Your task to perform on an android device: set the stopwatch Image 0: 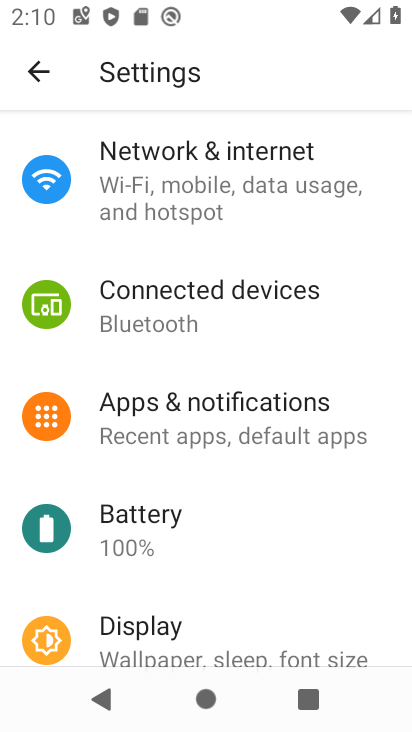
Step 0: press home button
Your task to perform on an android device: set the stopwatch Image 1: 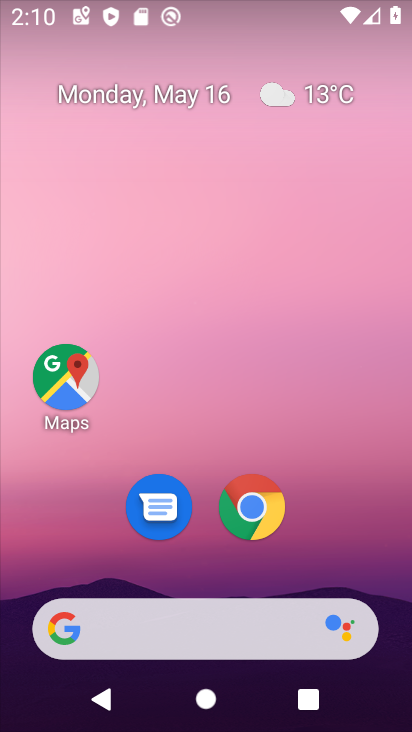
Step 1: drag from (292, 3) to (297, 61)
Your task to perform on an android device: set the stopwatch Image 2: 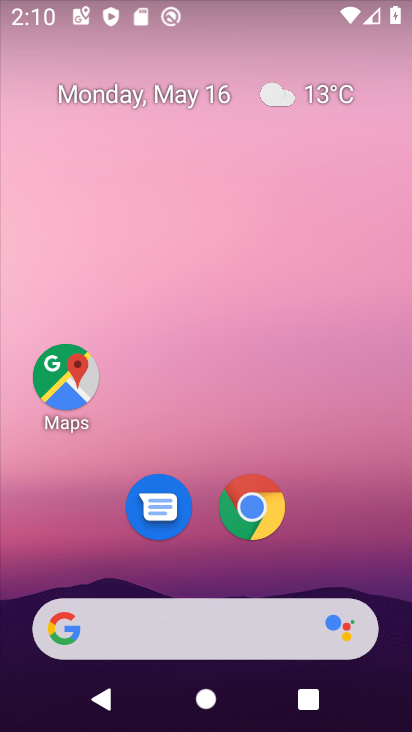
Step 2: drag from (363, 544) to (369, 108)
Your task to perform on an android device: set the stopwatch Image 3: 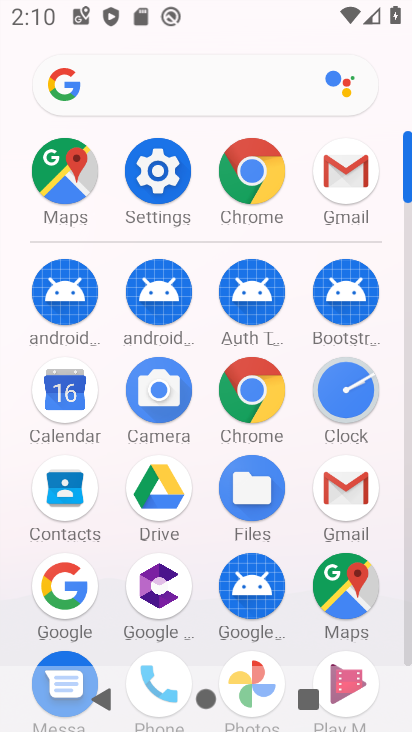
Step 3: click (345, 385)
Your task to perform on an android device: set the stopwatch Image 4: 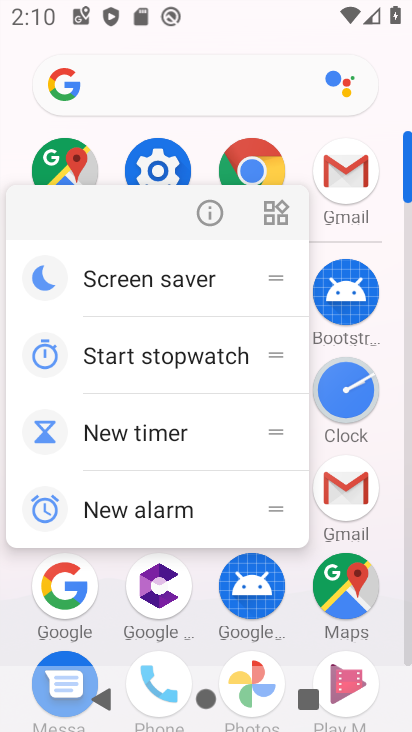
Step 4: click (345, 385)
Your task to perform on an android device: set the stopwatch Image 5: 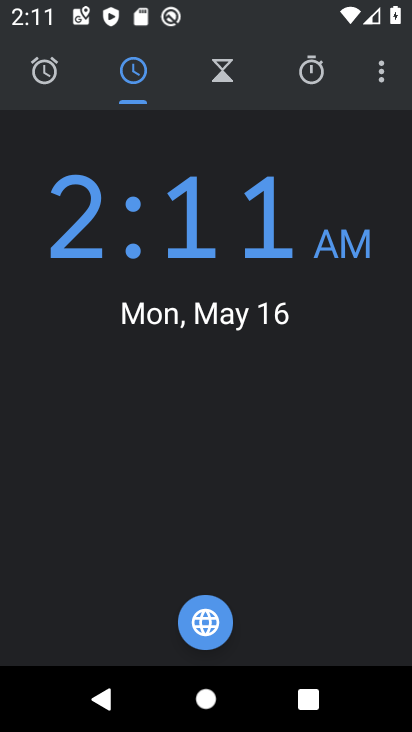
Step 5: click (306, 73)
Your task to perform on an android device: set the stopwatch Image 6: 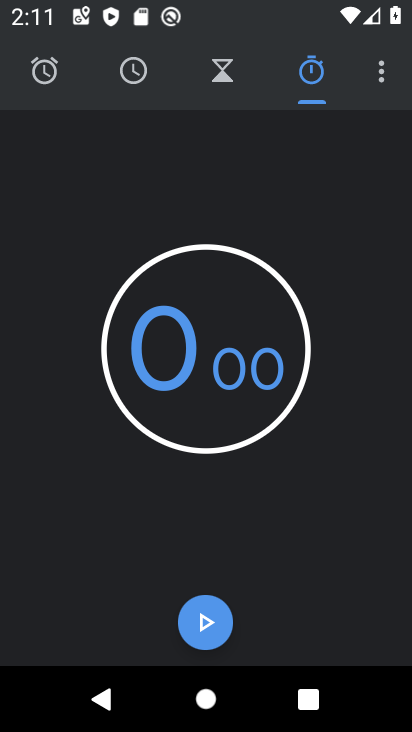
Step 6: click (214, 645)
Your task to perform on an android device: set the stopwatch Image 7: 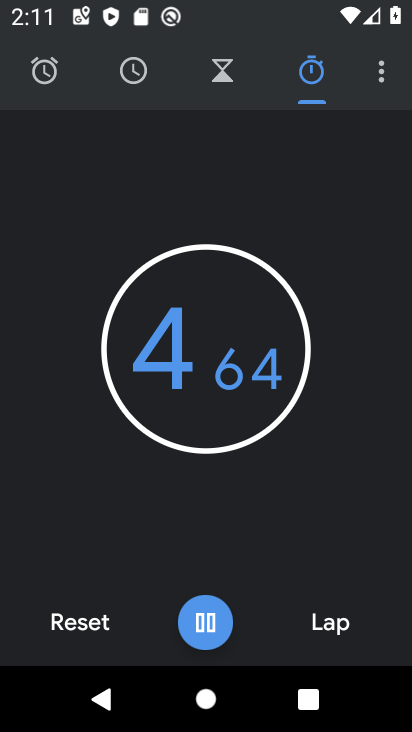
Step 7: task complete